Your task to perform on an android device: empty trash in the gmail app Image 0: 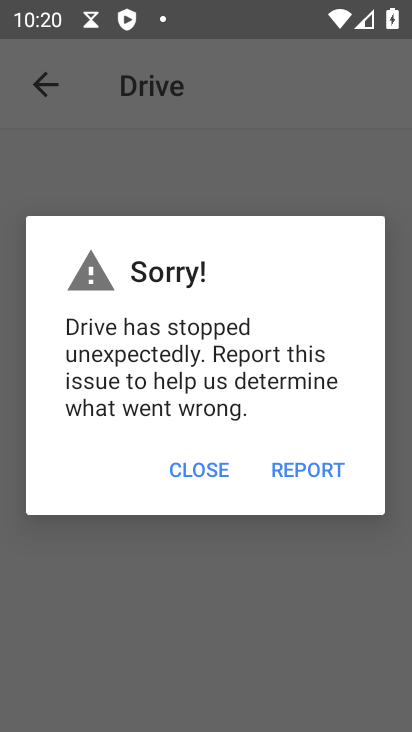
Step 0: press home button
Your task to perform on an android device: empty trash in the gmail app Image 1: 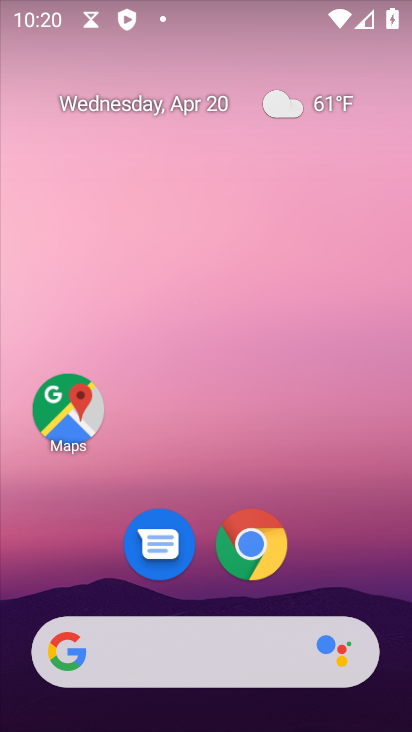
Step 1: drag from (164, 607) to (335, 100)
Your task to perform on an android device: empty trash in the gmail app Image 2: 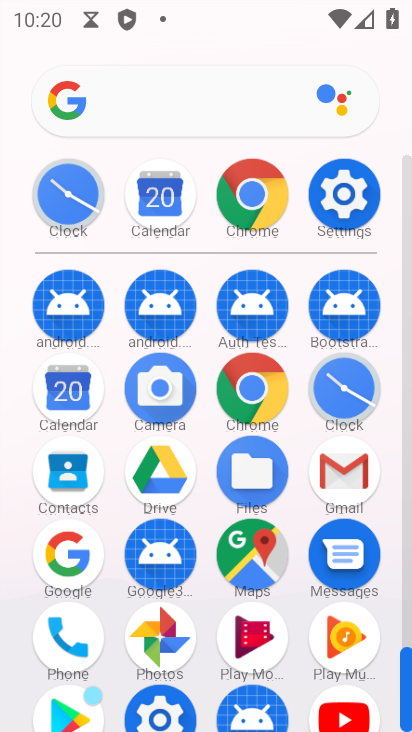
Step 2: click (347, 475)
Your task to perform on an android device: empty trash in the gmail app Image 3: 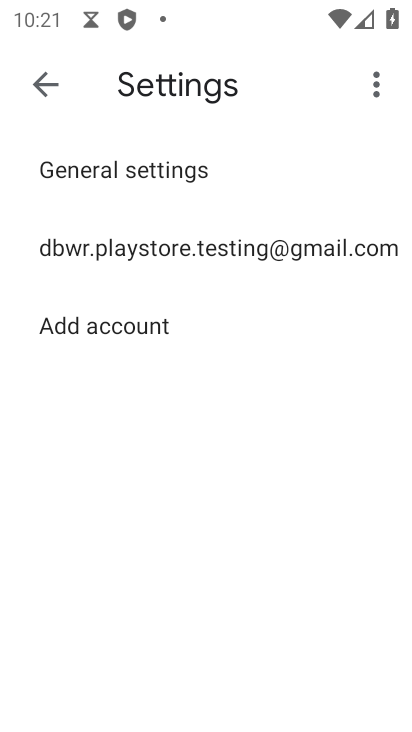
Step 3: click (41, 78)
Your task to perform on an android device: empty trash in the gmail app Image 4: 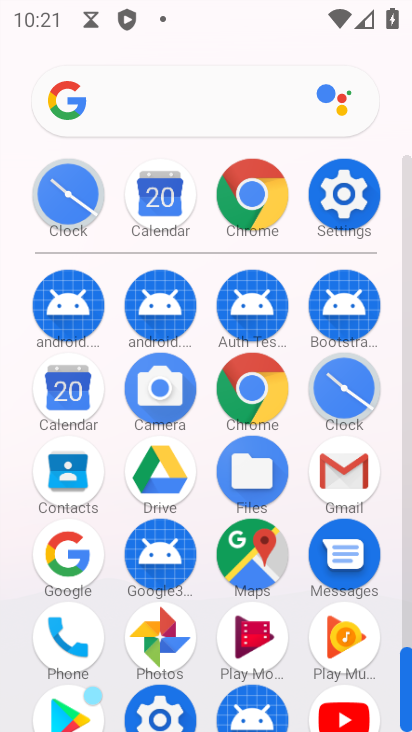
Step 4: click (344, 469)
Your task to perform on an android device: empty trash in the gmail app Image 5: 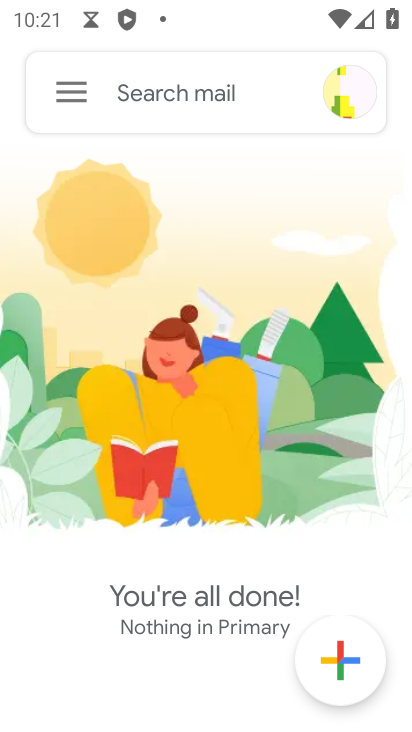
Step 5: click (68, 99)
Your task to perform on an android device: empty trash in the gmail app Image 6: 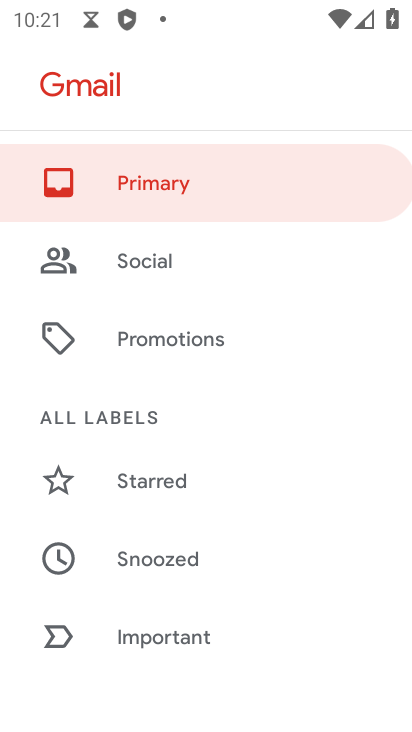
Step 6: drag from (211, 620) to (411, 118)
Your task to perform on an android device: empty trash in the gmail app Image 7: 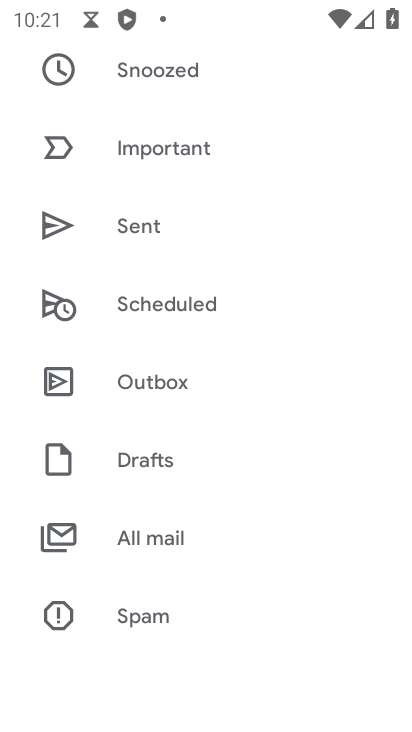
Step 7: drag from (208, 582) to (365, 128)
Your task to perform on an android device: empty trash in the gmail app Image 8: 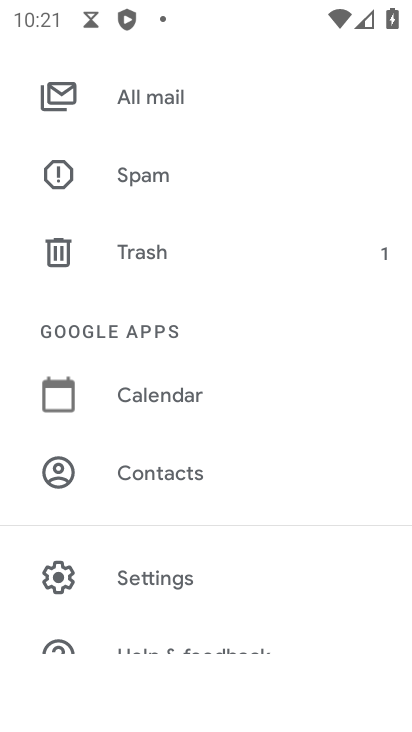
Step 8: click (146, 250)
Your task to perform on an android device: empty trash in the gmail app Image 9: 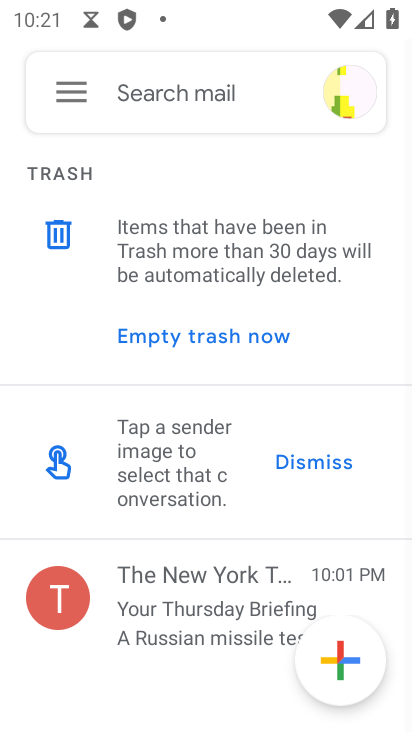
Step 9: click (193, 337)
Your task to perform on an android device: empty trash in the gmail app Image 10: 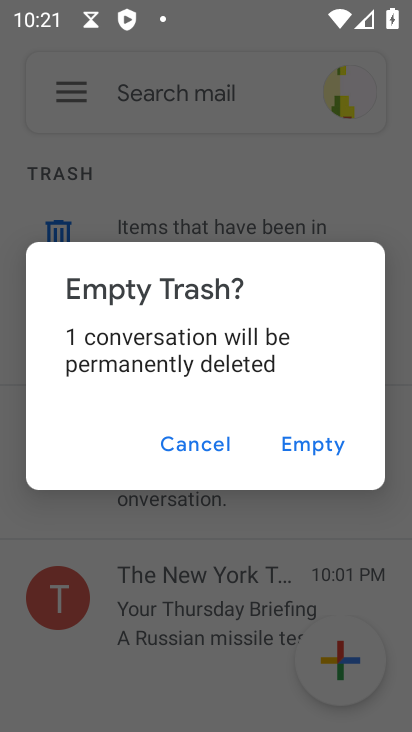
Step 10: click (298, 449)
Your task to perform on an android device: empty trash in the gmail app Image 11: 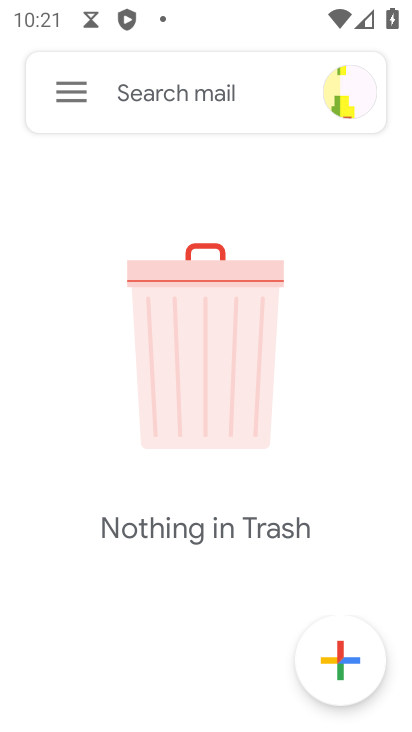
Step 11: task complete